Your task to perform on an android device: move an email to a new category in the gmail app Image 0: 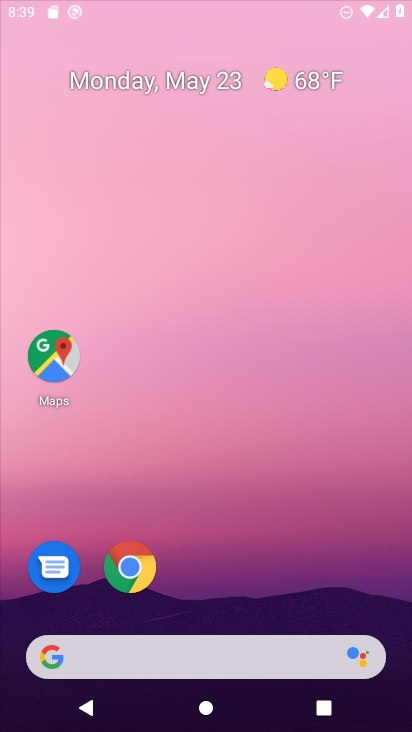
Step 0: click (332, 220)
Your task to perform on an android device: move an email to a new category in the gmail app Image 1: 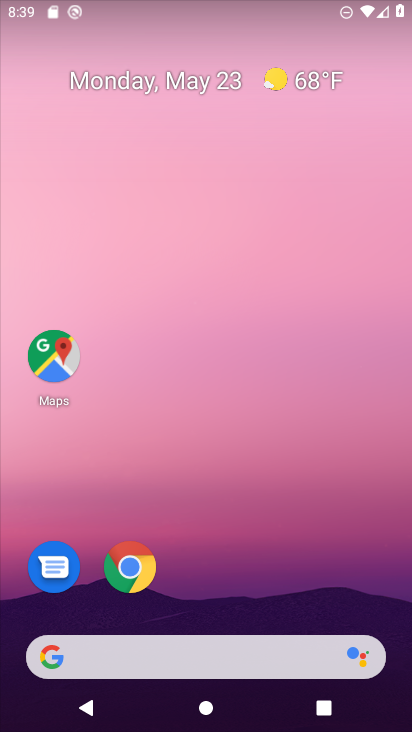
Step 1: drag from (211, 504) to (327, 33)
Your task to perform on an android device: move an email to a new category in the gmail app Image 2: 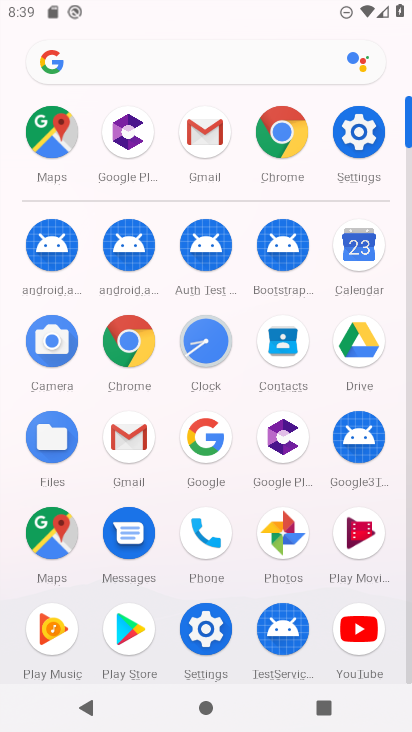
Step 2: click (134, 426)
Your task to perform on an android device: move an email to a new category in the gmail app Image 3: 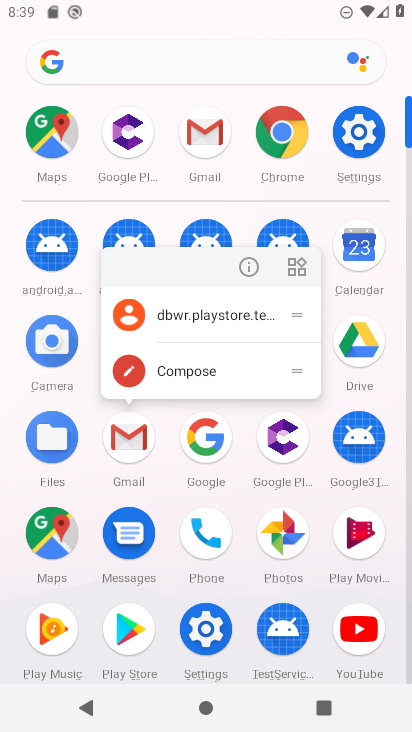
Step 3: click (248, 266)
Your task to perform on an android device: move an email to a new category in the gmail app Image 4: 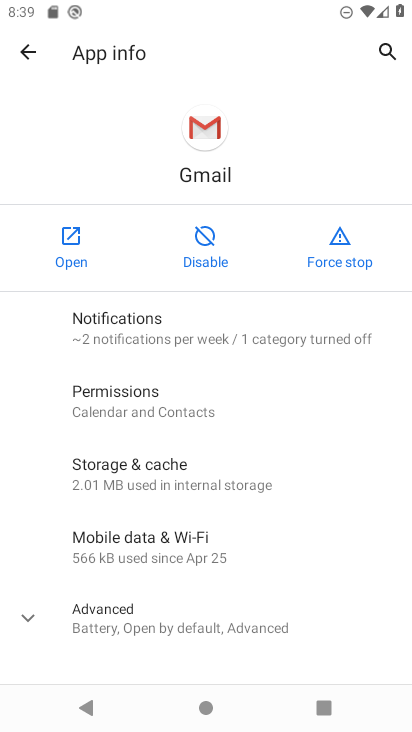
Step 4: click (77, 257)
Your task to perform on an android device: move an email to a new category in the gmail app Image 5: 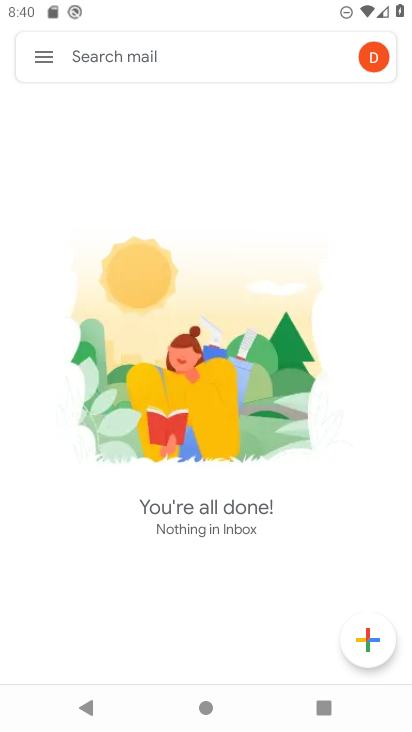
Step 5: click (36, 61)
Your task to perform on an android device: move an email to a new category in the gmail app Image 6: 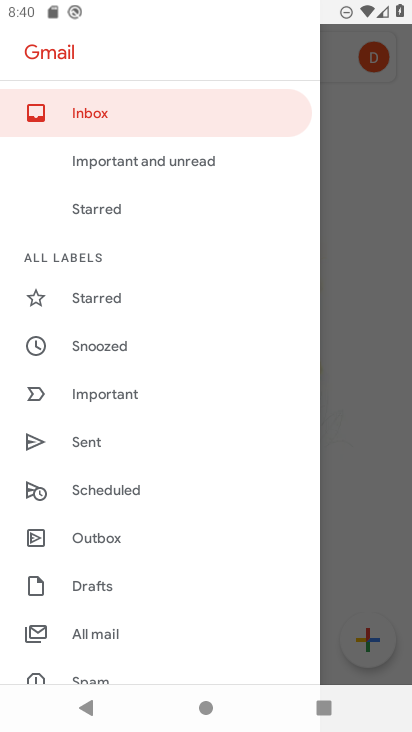
Step 6: task complete